Your task to perform on an android device: turn off airplane mode Image 0: 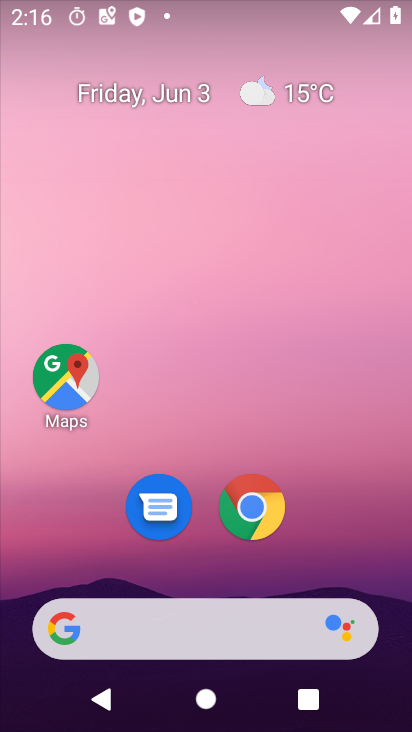
Step 0: drag from (236, 2) to (285, 603)
Your task to perform on an android device: turn off airplane mode Image 1: 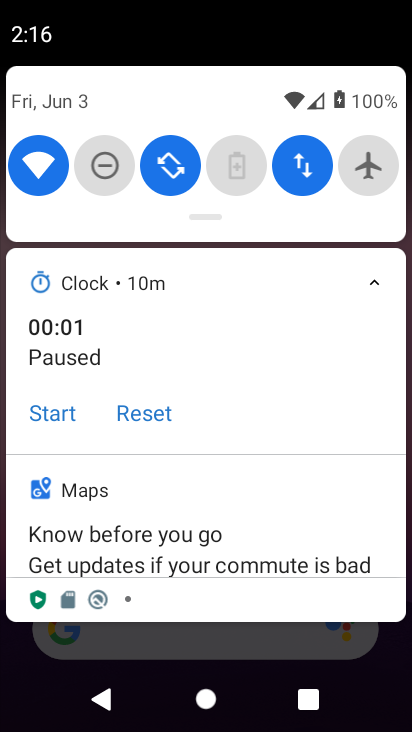
Step 1: task complete